Your task to perform on an android device: find which apps use the phone's location Image 0: 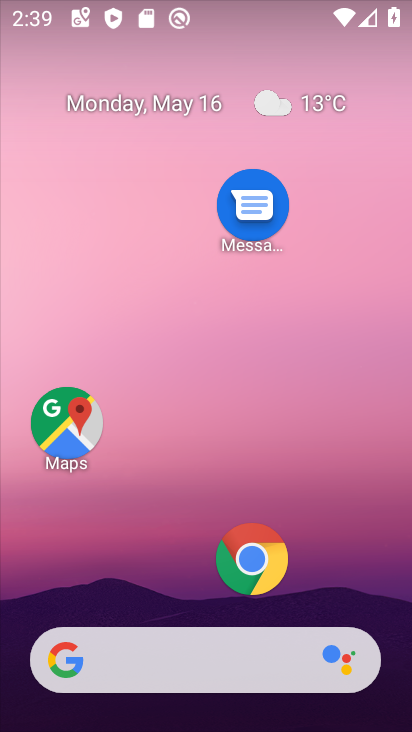
Step 0: drag from (156, 564) to (158, 248)
Your task to perform on an android device: find which apps use the phone's location Image 1: 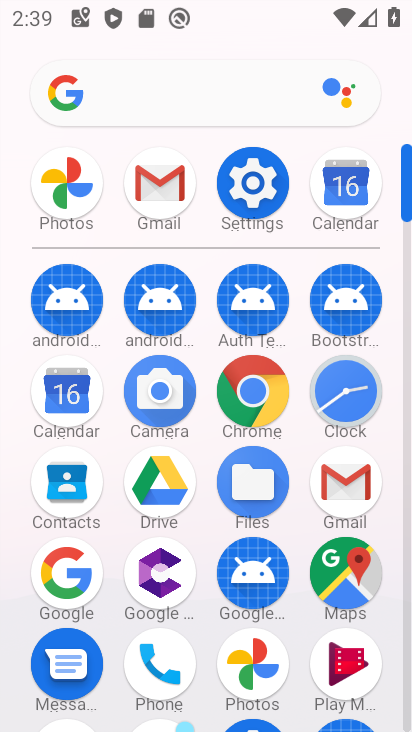
Step 1: click (256, 187)
Your task to perform on an android device: find which apps use the phone's location Image 2: 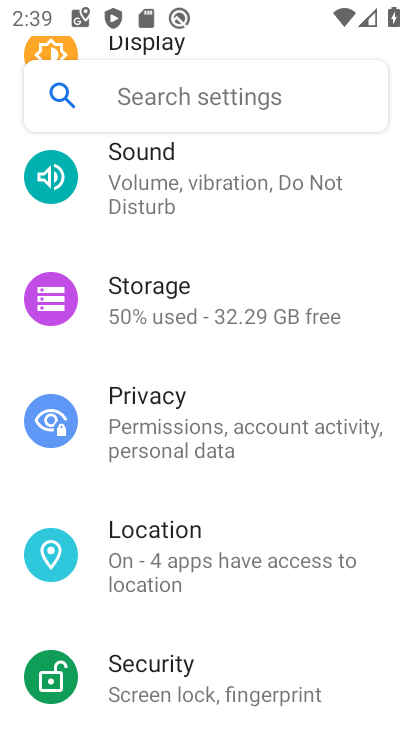
Step 2: click (218, 543)
Your task to perform on an android device: find which apps use the phone's location Image 3: 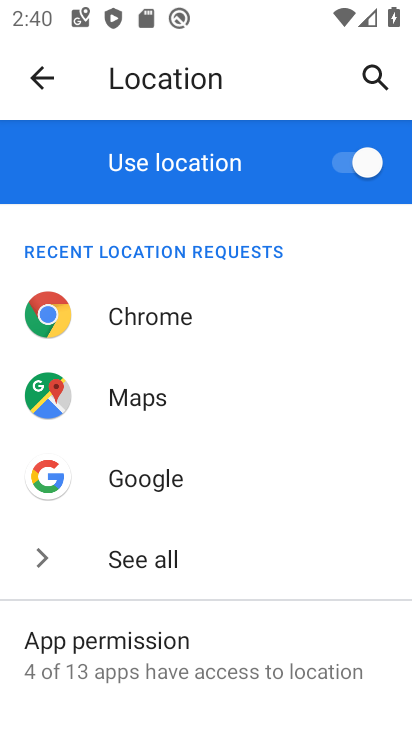
Step 3: click (139, 384)
Your task to perform on an android device: find which apps use the phone's location Image 4: 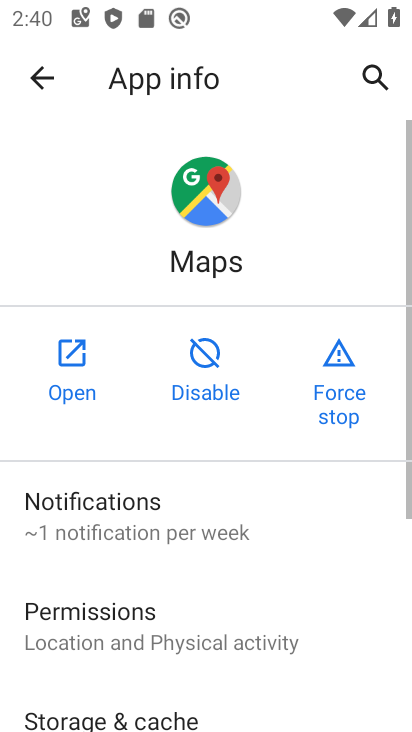
Step 4: task complete